Your task to perform on an android device: Go to Yahoo.com Image 0: 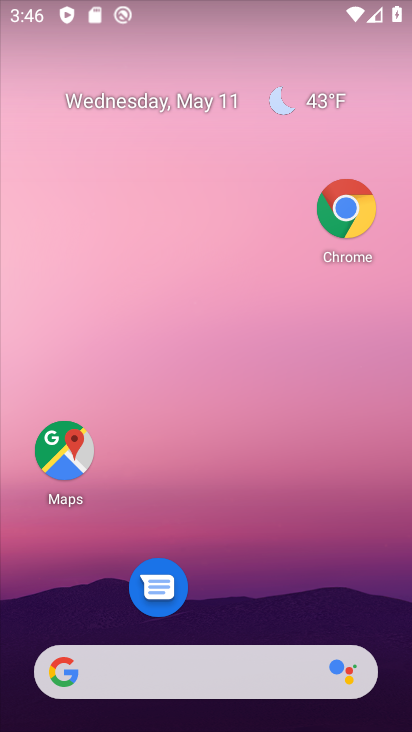
Step 0: drag from (289, 605) to (199, 192)
Your task to perform on an android device: Go to Yahoo.com Image 1: 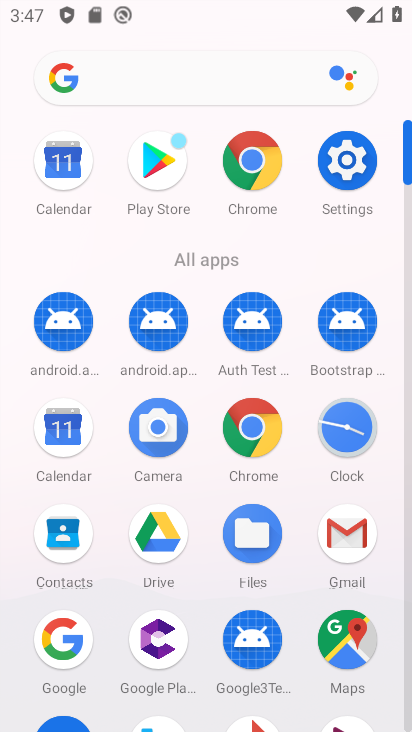
Step 1: click (238, 180)
Your task to perform on an android device: Go to Yahoo.com Image 2: 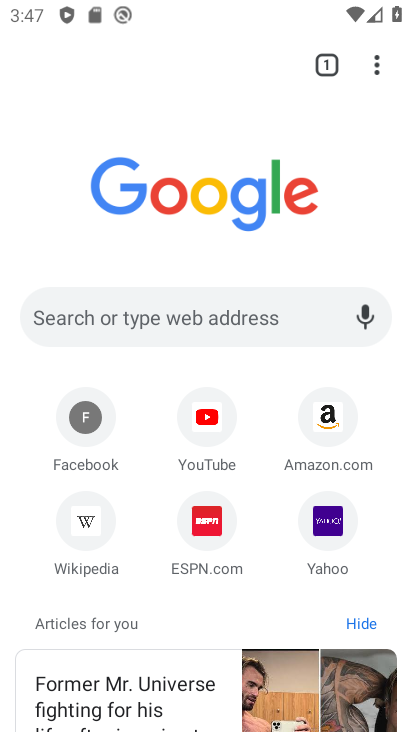
Step 2: click (310, 529)
Your task to perform on an android device: Go to Yahoo.com Image 3: 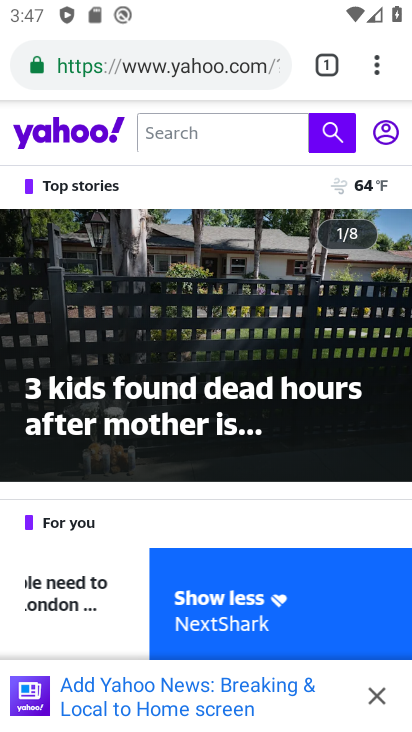
Step 3: click (379, 689)
Your task to perform on an android device: Go to Yahoo.com Image 4: 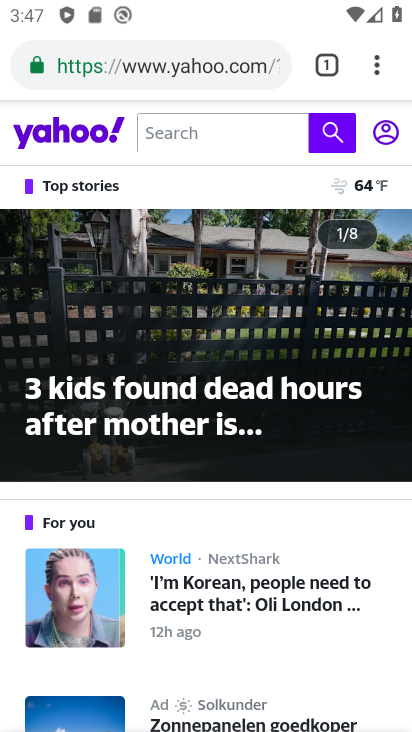
Step 4: task complete